Your task to perform on an android device: see sites visited before in the chrome app Image 0: 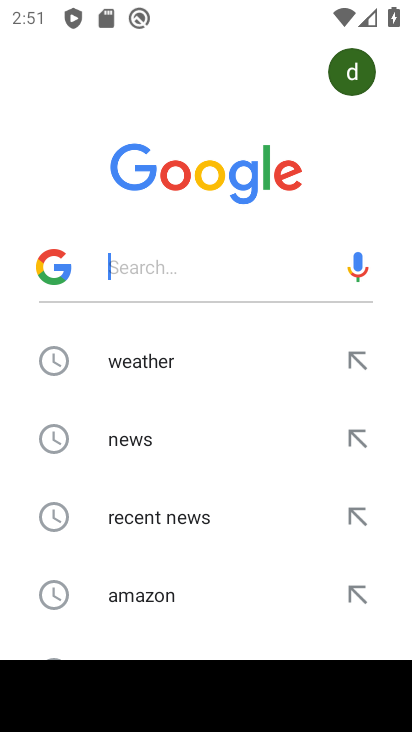
Step 0: press home button
Your task to perform on an android device: see sites visited before in the chrome app Image 1: 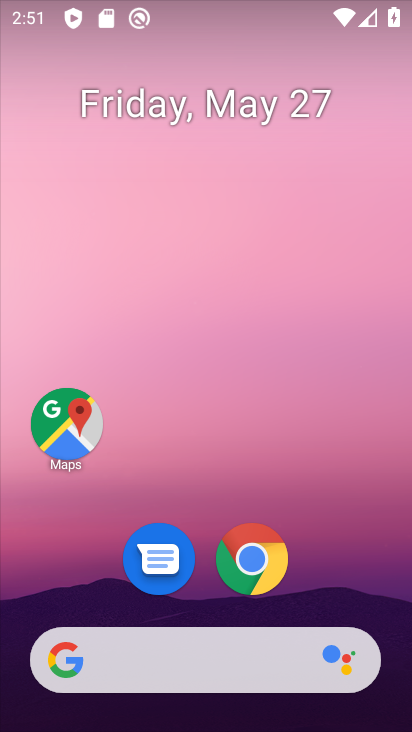
Step 1: click (268, 557)
Your task to perform on an android device: see sites visited before in the chrome app Image 2: 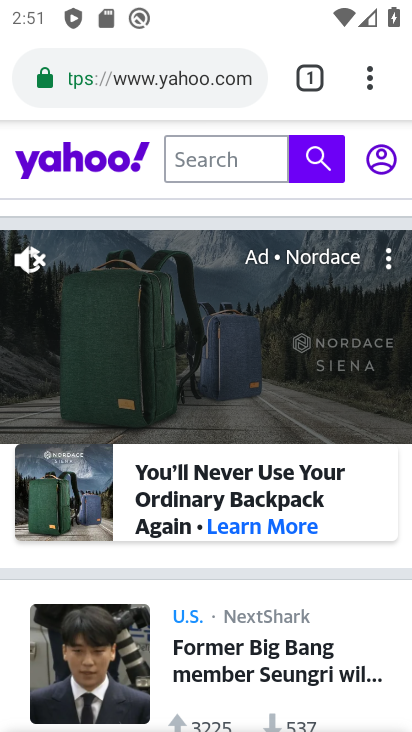
Step 2: click (372, 70)
Your task to perform on an android device: see sites visited before in the chrome app Image 3: 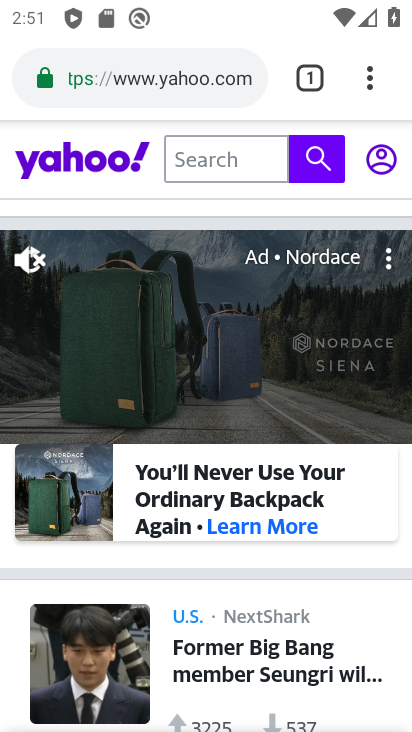
Step 3: click (372, 70)
Your task to perform on an android device: see sites visited before in the chrome app Image 4: 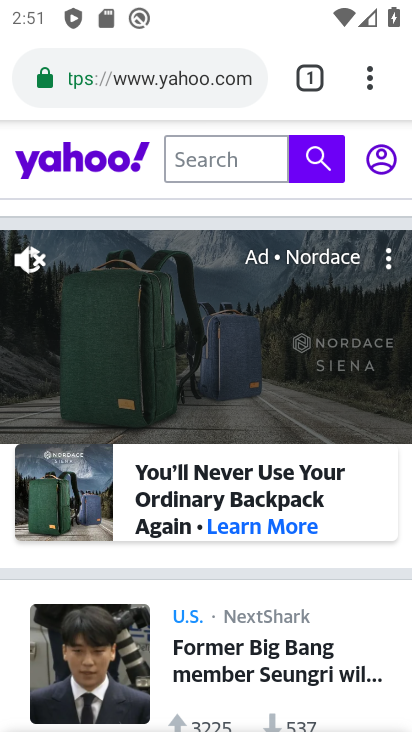
Step 4: click (371, 85)
Your task to perform on an android device: see sites visited before in the chrome app Image 5: 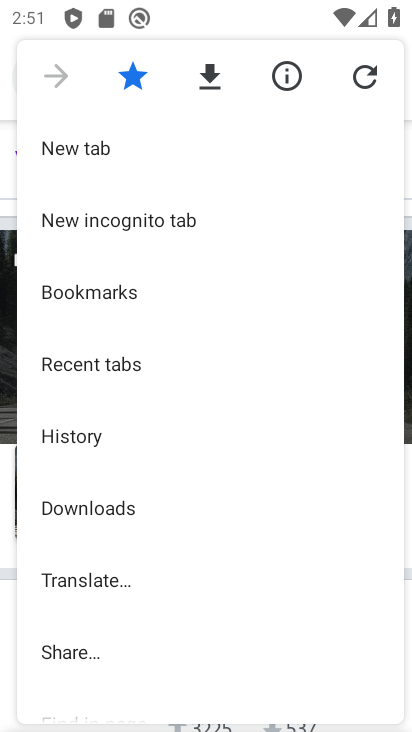
Step 5: click (279, 705)
Your task to perform on an android device: see sites visited before in the chrome app Image 6: 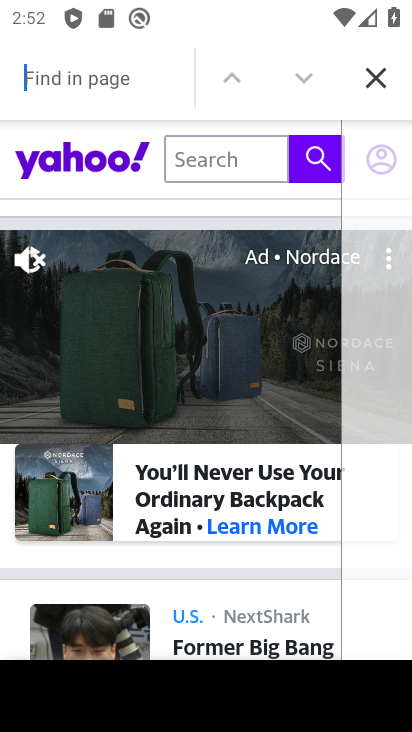
Step 6: click (380, 59)
Your task to perform on an android device: see sites visited before in the chrome app Image 7: 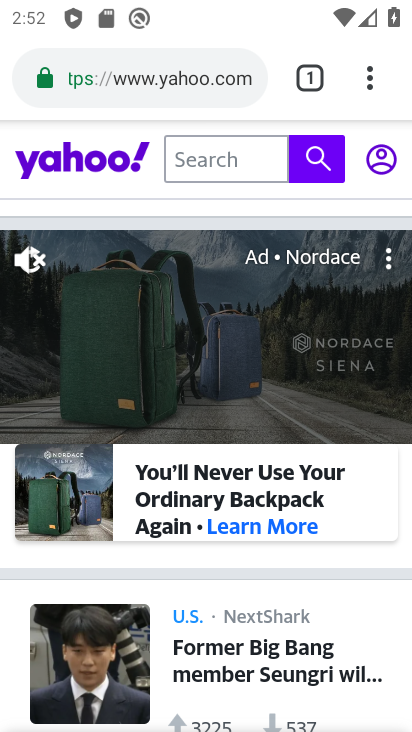
Step 7: click (361, 70)
Your task to perform on an android device: see sites visited before in the chrome app Image 8: 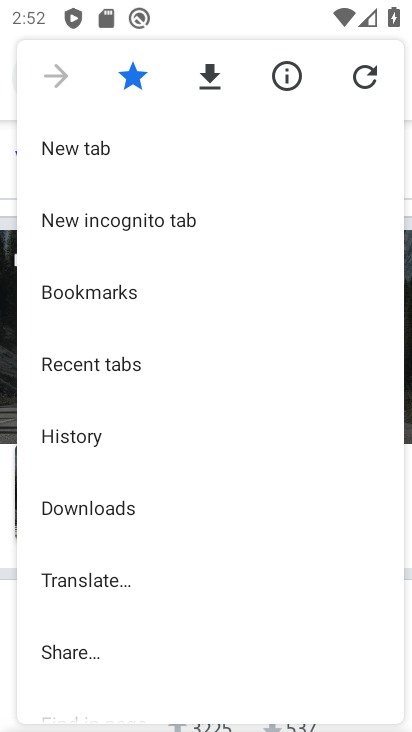
Step 8: drag from (125, 628) to (99, 100)
Your task to perform on an android device: see sites visited before in the chrome app Image 9: 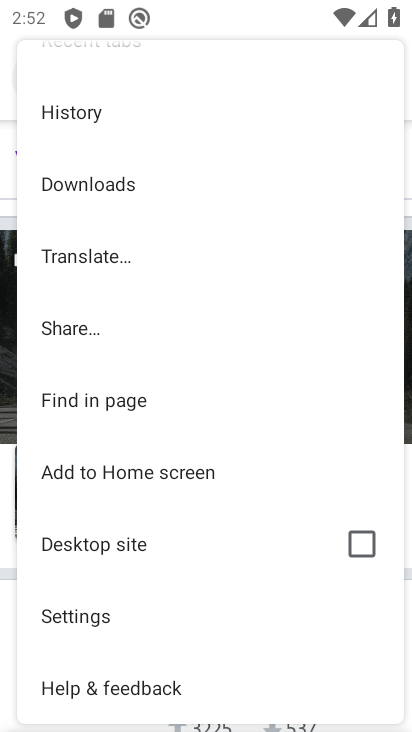
Step 9: drag from (117, 126) to (151, 533)
Your task to perform on an android device: see sites visited before in the chrome app Image 10: 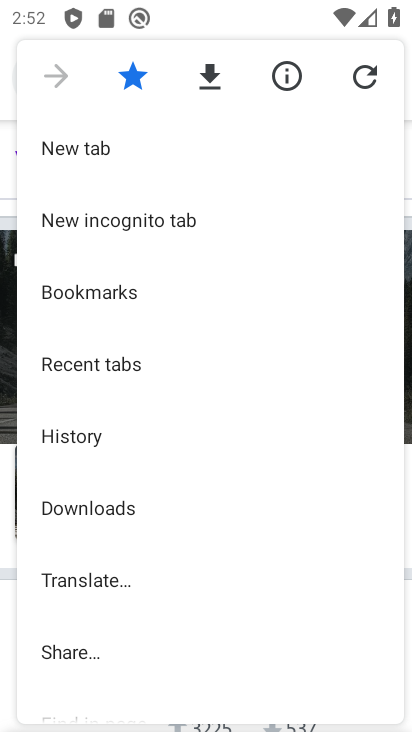
Step 10: click (119, 368)
Your task to perform on an android device: see sites visited before in the chrome app Image 11: 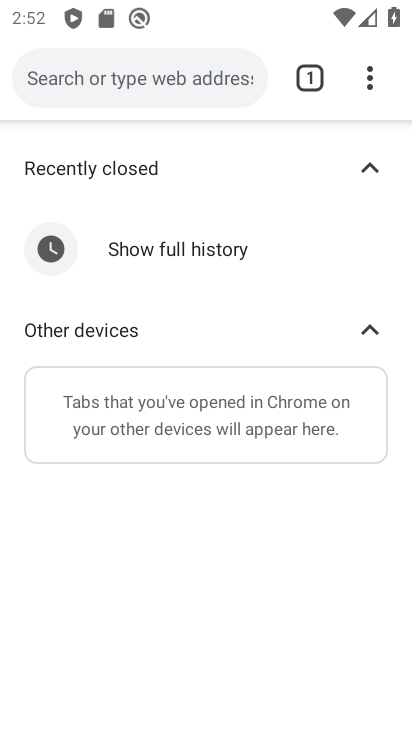
Step 11: click (131, 336)
Your task to perform on an android device: see sites visited before in the chrome app Image 12: 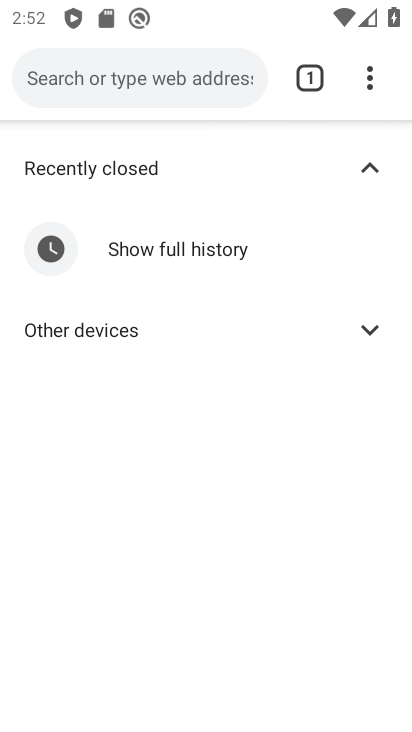
Step 12: click (131, 336)
Your task to perform on an android device: see sites visited before in the chrome app Image 13: 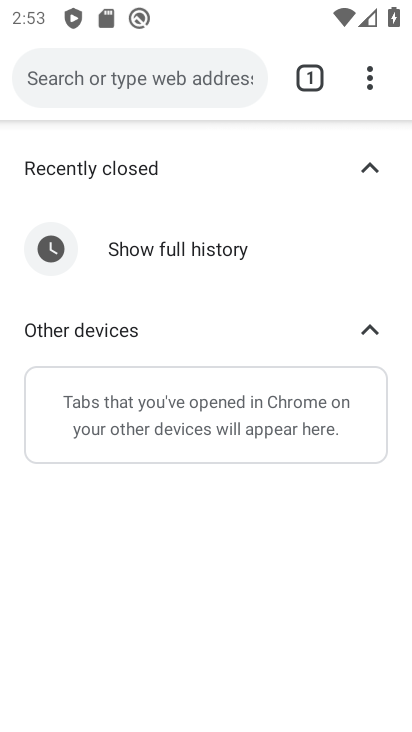
Step 13: task complete